Your task to perform on an android device: Open Youtube and go to "Your channel" Image 0: 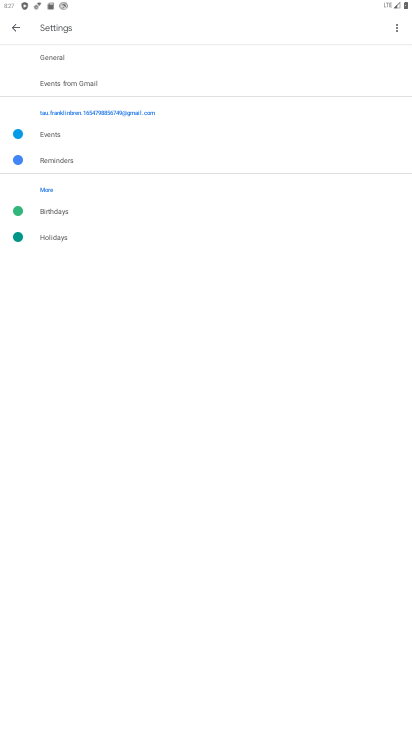
Step 0: press home button
Your task to perform on an android device: Open Youtube and go to "Your channel" Image 1: 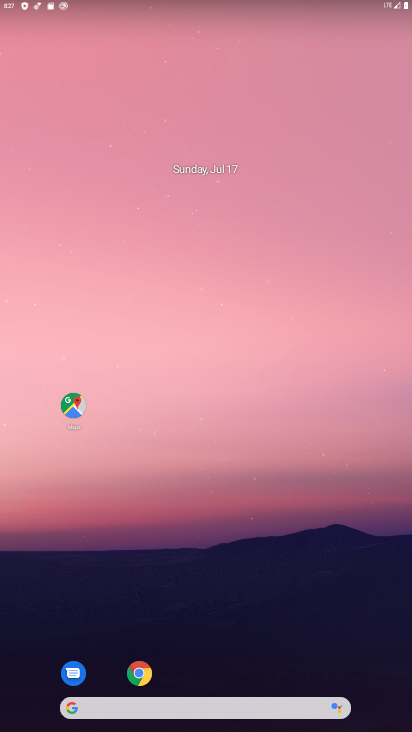
Step 1: drag from (285, 659) to (364, 29)
Your task to perform on an android device: Open Youtube and go to "Your channel" Image 2: 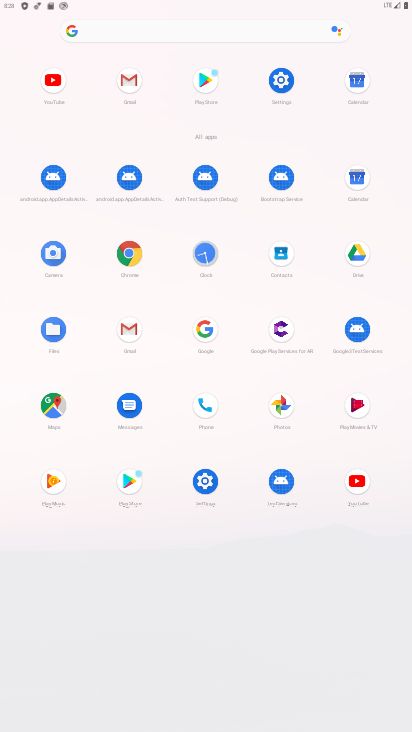
Step 2: click (48, 82)
Your task to perform on an android device: Open Youtube and go to "Your channel" Image 3: 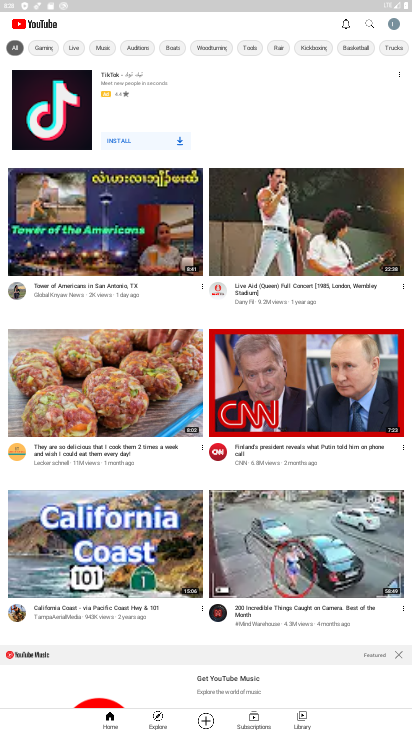
Step 3: click (390, 17)
Your task to perform on an android device: Open Youtube and go to "Your channel" Image 4: 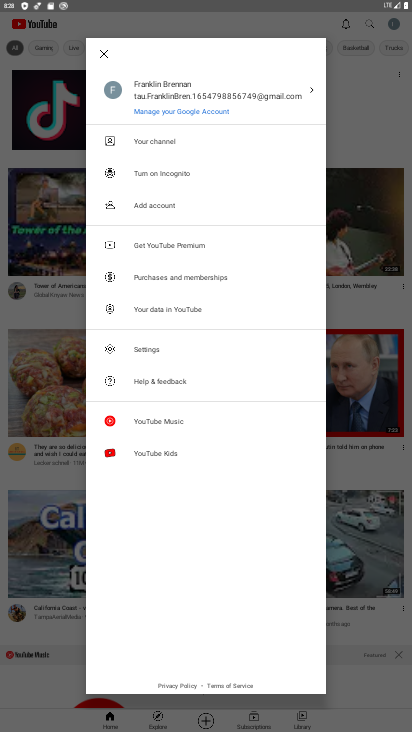
Step 4: click (138, 141)
Your task to perform on an android device: Open Youtube and go to "Your channel" Image 5: 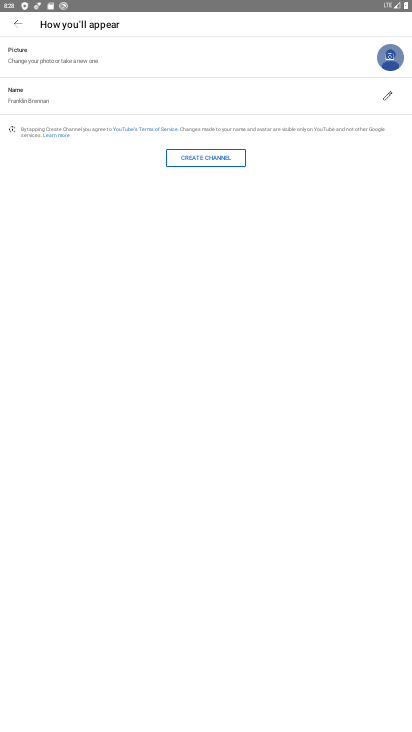
Step 5: task complete